Your task to perform on an android device: Open CNN.com Image 0: 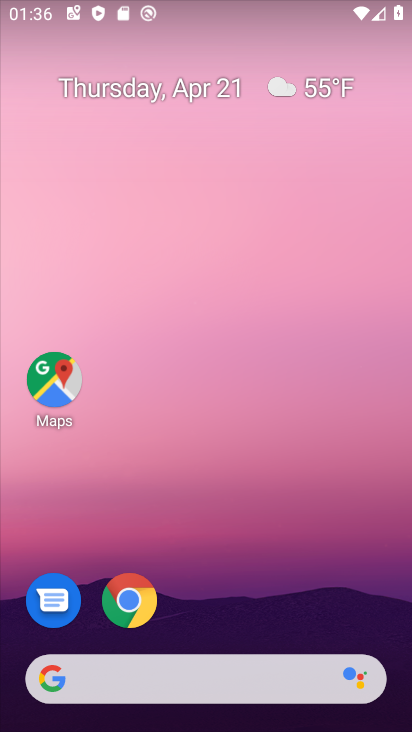
Step 0: click (141, 607)
Your task to perform on an android device: Open CNN.com Image 1: 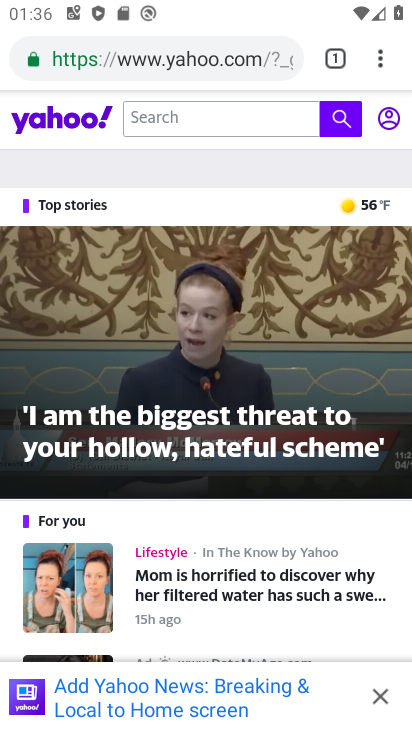
Step 1: click (177, 65)
Your task to perform on an android device: Open CNN.com Image 2: 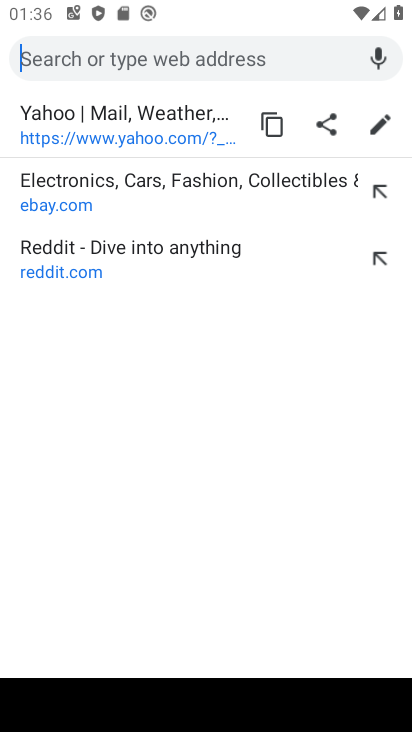
Step 2: type "CNN.com"
Your task to perform on an android device: Open CNN.com Image 3: 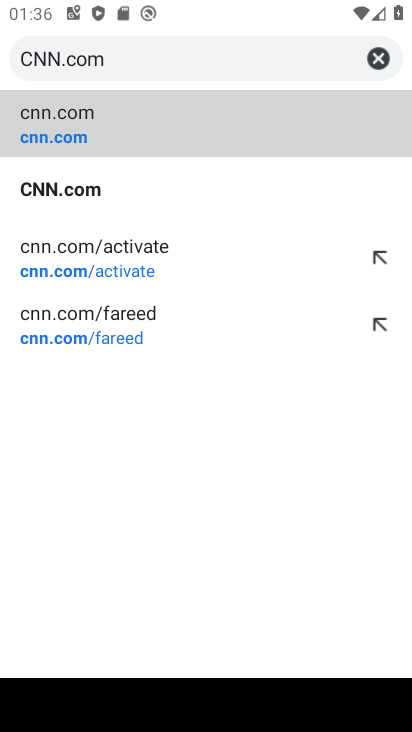
Step 3: click (25, 196)
Your task to perform on an android device: Open CNN.com Image 4: 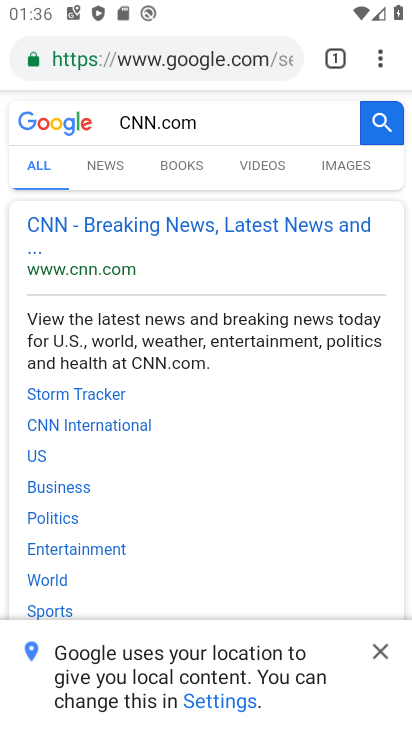
Step 4: click (111, 262)
Your task to perform on an android device: Open CNN.com Image 5: 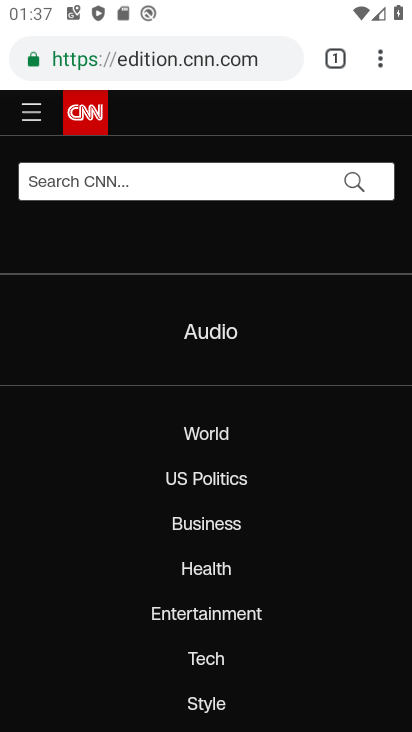
Step 5: task complete